Your task to perform on an android device: change notifications settings Image 0: 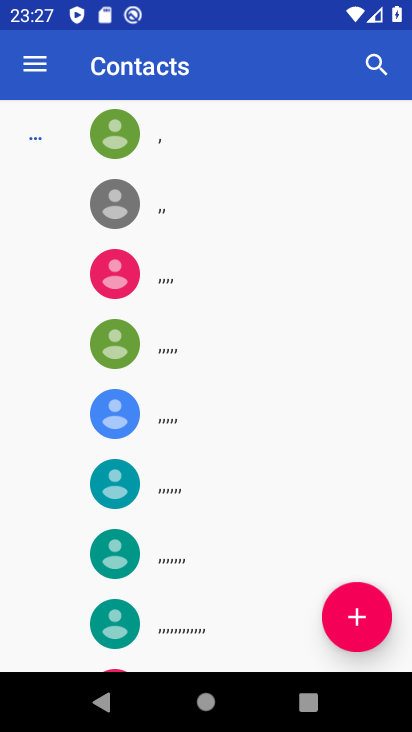
Step 0: press home button
Your task to perform on an android device: change notifications settings Image 1: 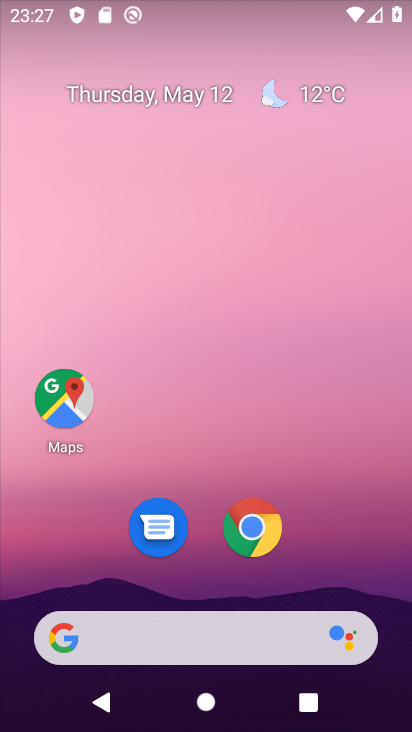
Step 1: drag from (26, 561) to (239, 193)
Your task to perform on an android device: change notifications settings Image 2: 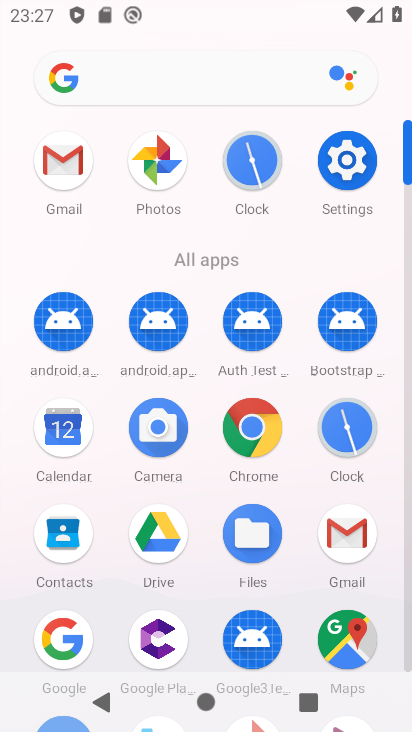
Step 2: click (338, 162)
Your task to perform on an android device: change notifications settings Image 3: 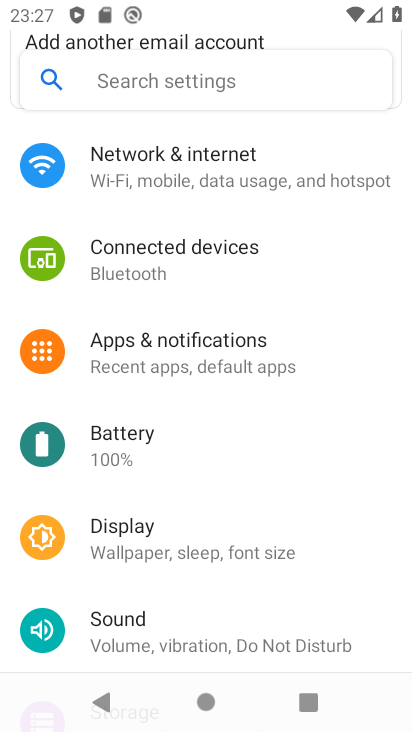
Step 3: click (199, 353)
Your task to perform on an android device: change notifications settings Image 4: 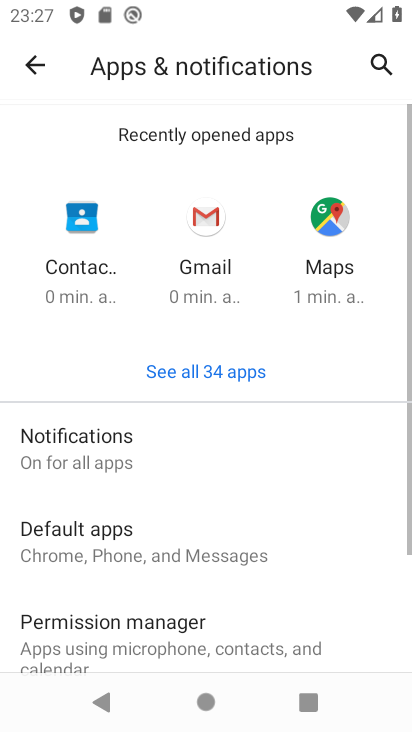
Step 4: click (166, 453)
Your task to perform on an android device: change notifications settings Image 5: 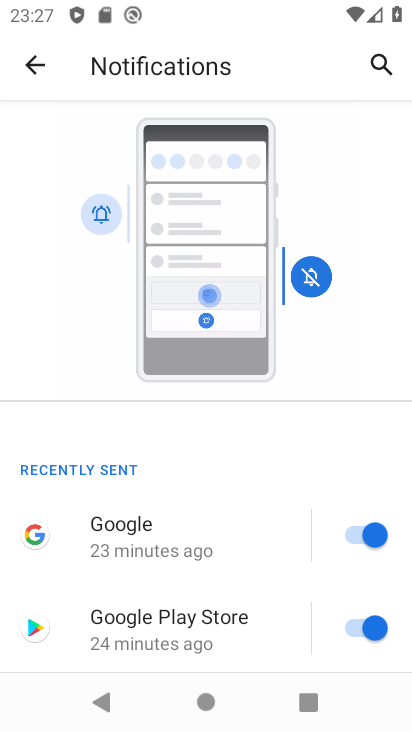
Step 5: click (370, 545)
Your task to perform on an android device: change notifications settings Image 6: 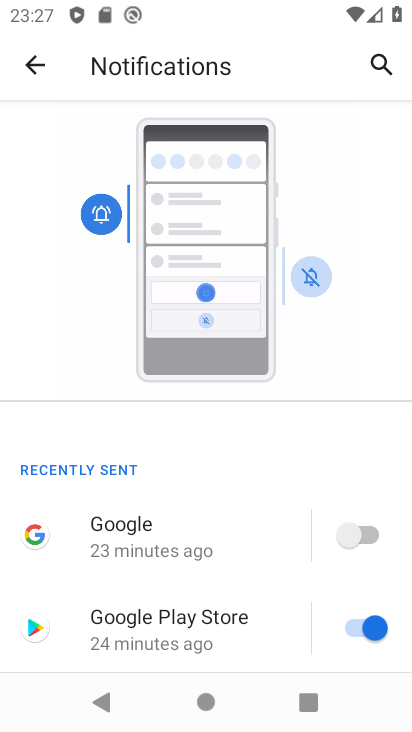
Step 6: task complete